Your task to perform on an android device: turn smart compose on in the gmail app Image 0: 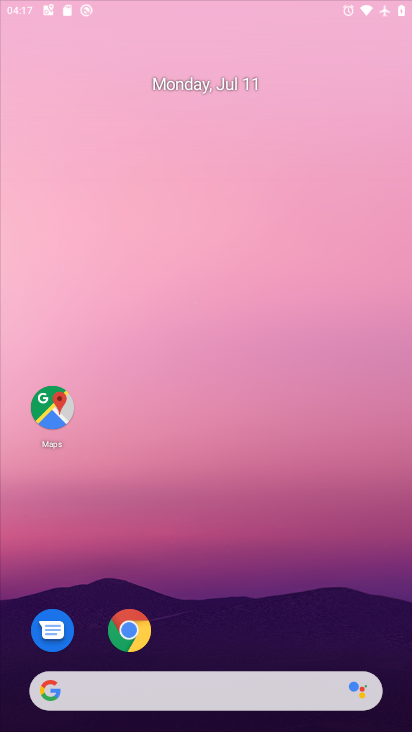
Step 0: drag from (216, 641) to (191, 163)
Your task to perform on an android device: turn smart compose on in the gmail app Image 1: 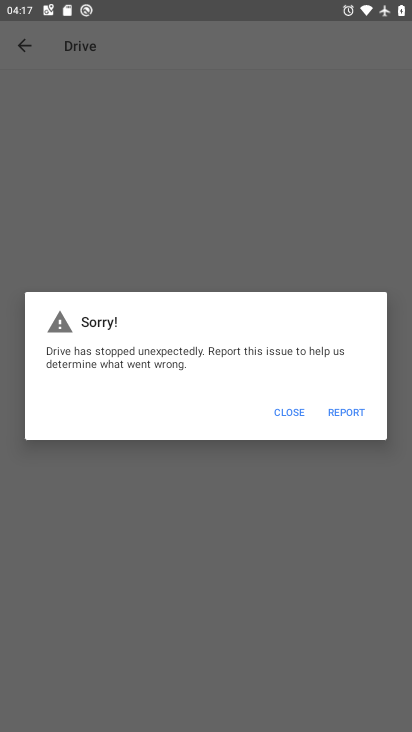
Step 1: click (294, 414)
Your task to perform on an android device: turn smart compose on in the gmail app Image 2: 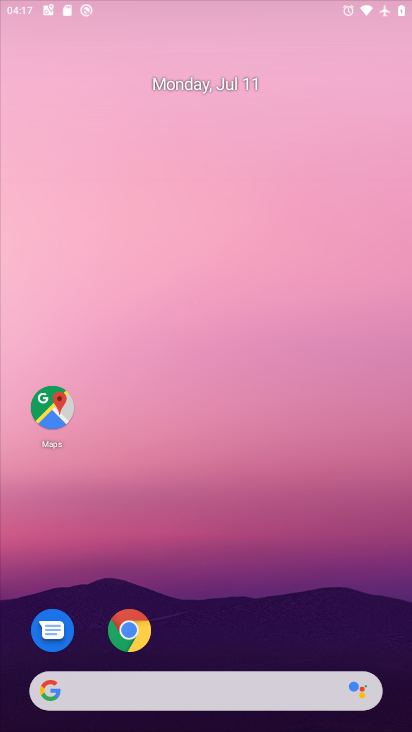
Step 2: press home button
Your task to perform on an android device: turn smart compose on in the gmail app Image 3: 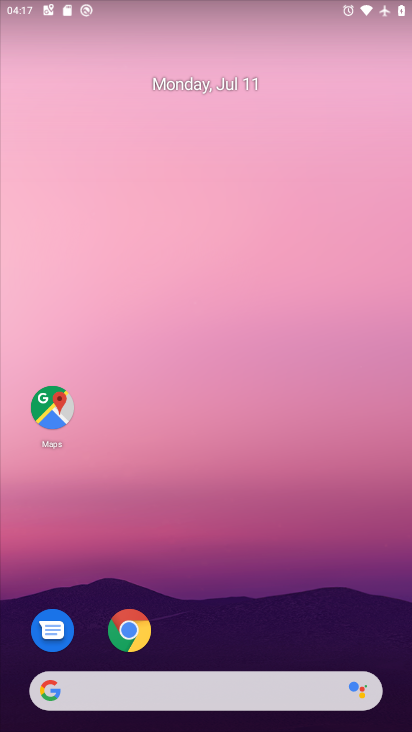
Step 3: drag from (234, 641) to (249, 478)
Your task to perform on an android device: turn smart compose on in the gmail app Image 4: 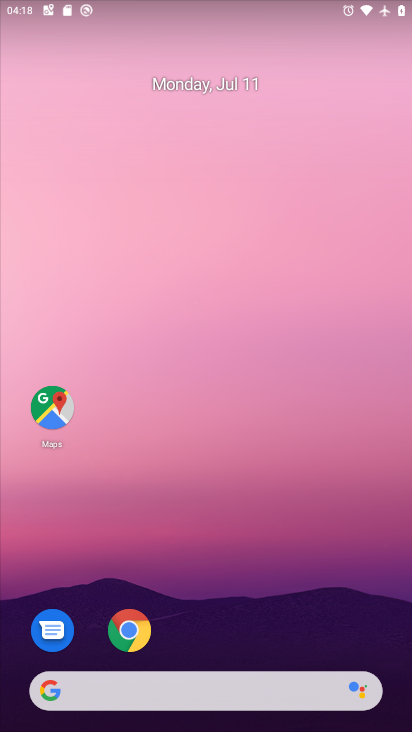
Step 4: drag from (210, 632) to (202, 31)
Your task to perform on an android device: turn smart compose on in the gmail app Image 5: 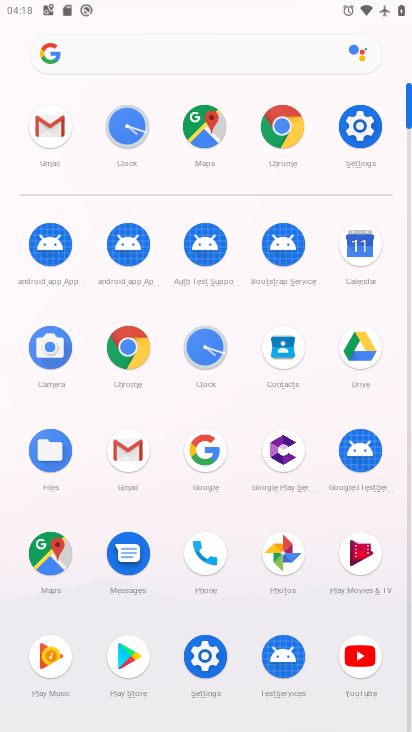
Step 5: click (37, 145)
Your task to perform on an android device: turn smart compose on in the gmail app Image 6: 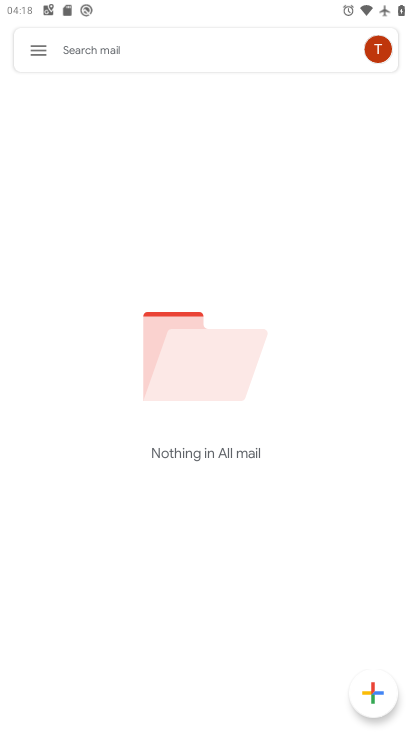
Step 6: click (39, 58)
Your task to perform on an android device: turn smart compose on in the gmail app Image 7: 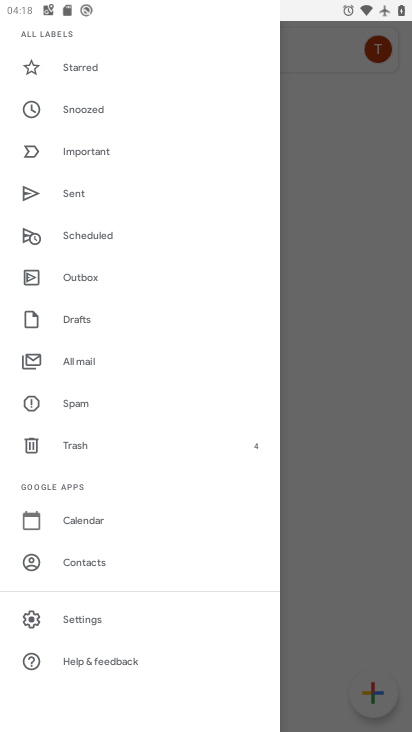
Step 7: click (110, 604)
Your task to perform on an android device: turn smart compose on in the gmail app Image 8: 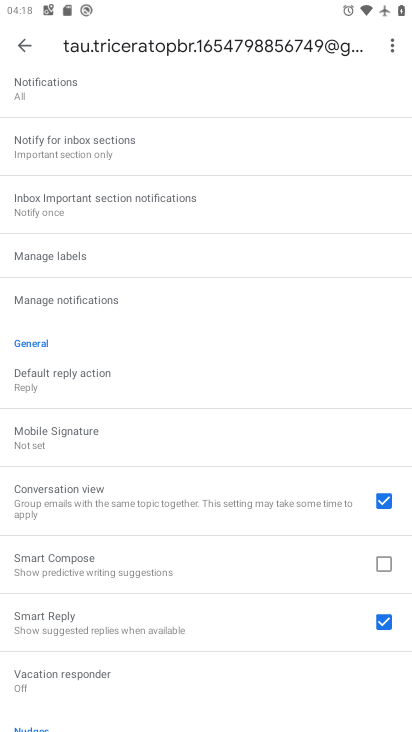
Step 8: click (329, 555)
Your task to perform on an android device: turn smart compose on in the gmail app Image 9: 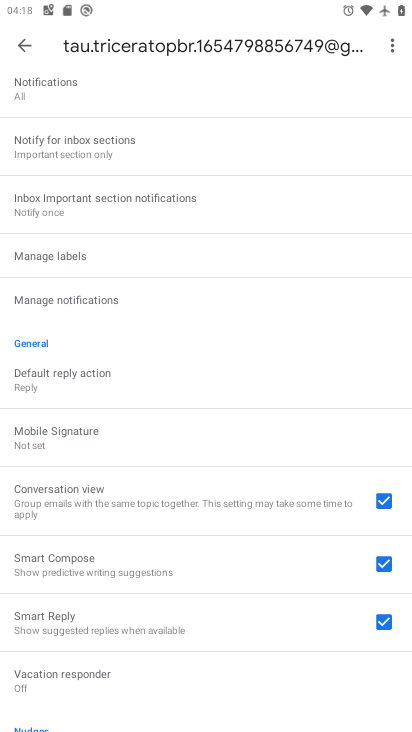
Step 9: task complete